Your task to perform on an android device: Go to CNN.com Image 0: 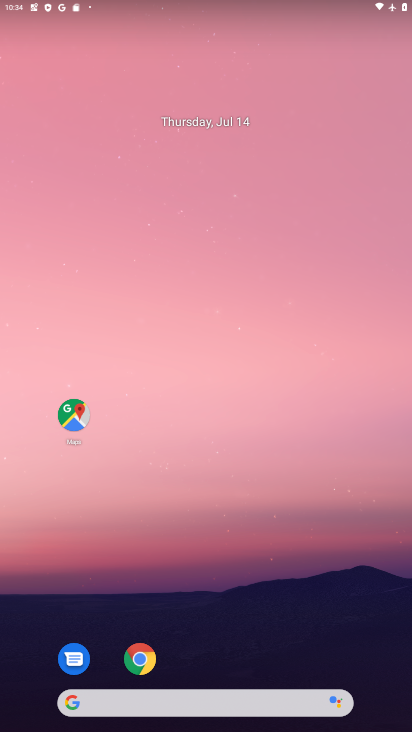
Step 0: drag from (276, 673) to (223, 134)
Your task to perform on an android device: Go to CNN.com Image 1: 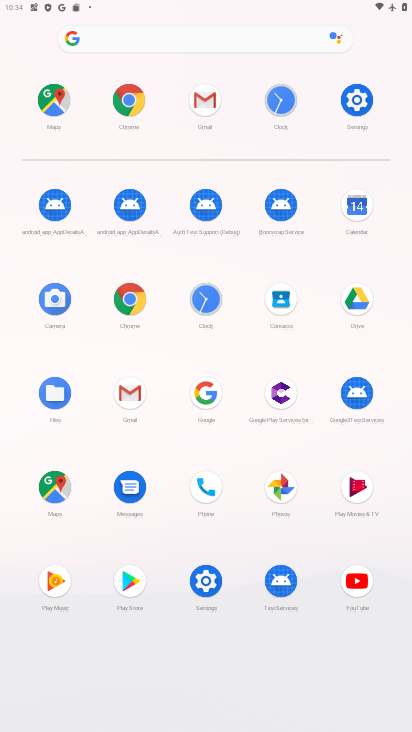
Step 1: click (133, 100)
Your task to perform on an android device: Go to CNN.com Image 2: 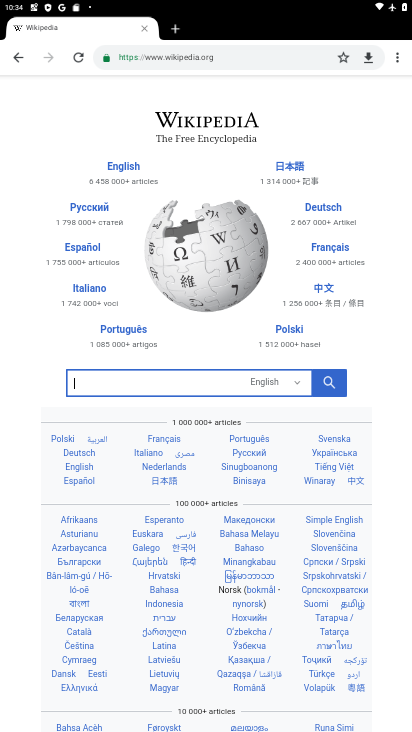
Step 2: click (251, 61)
Your task to perform on an android device: Go to CNN.com Image 3: 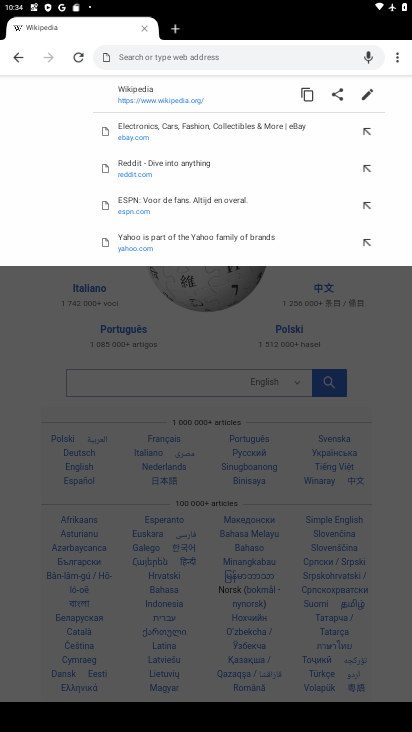
Step 3: type "cnn.com"
Your task to perform on an android device: Go to CNN.com Image 4: 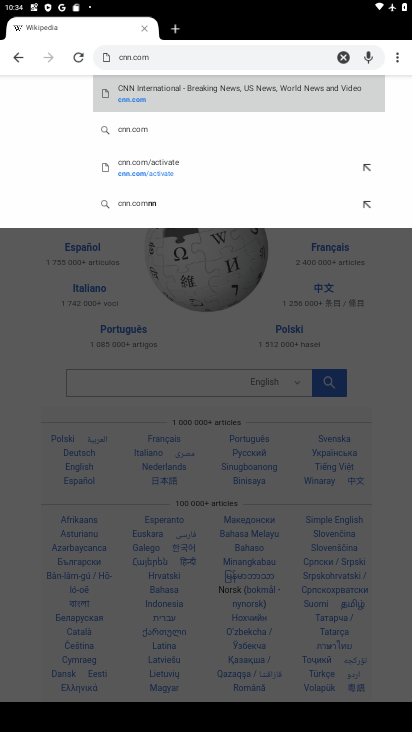
Step 4: click (200, 104)
Your task to perform on an android device: Go to CNN.com Image 5: 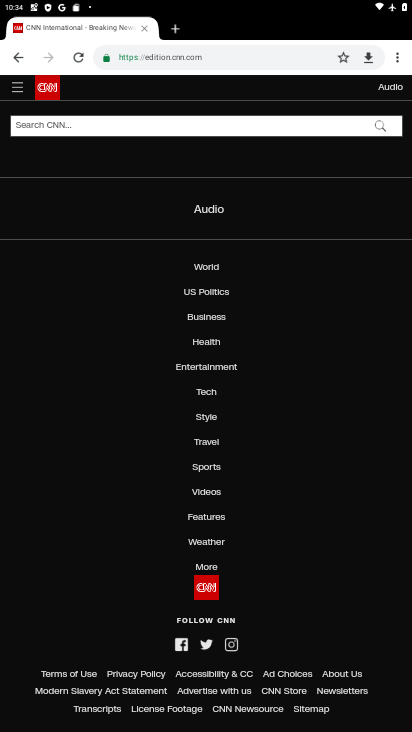
Step 5: task complete